Your task to perform on an android device: Open Google Maps Image 0: 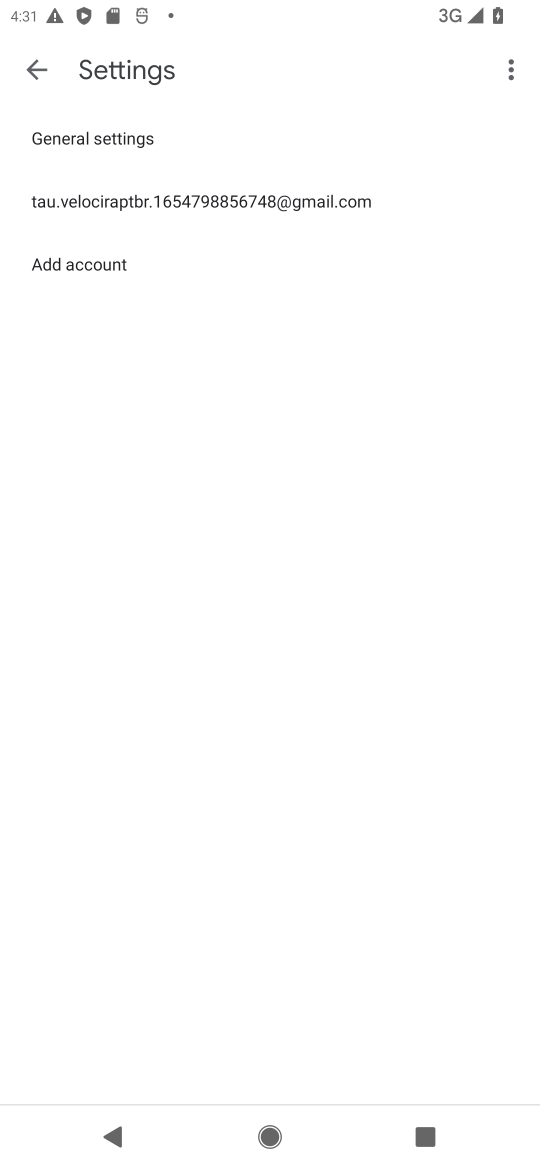
Step 0: task complete